Your task to perform on an android device: Open Amazon Image 0: 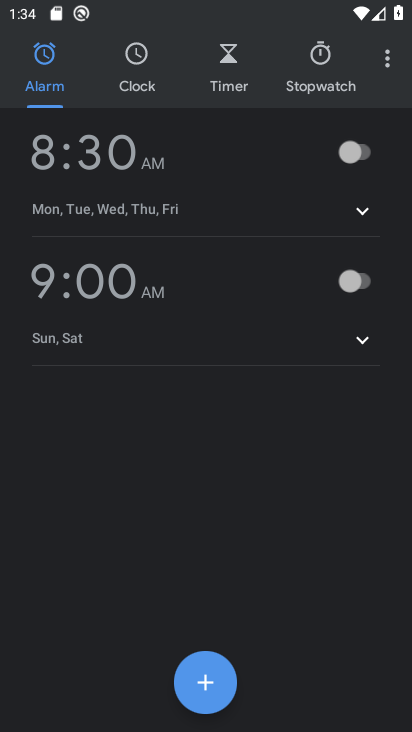
Step 0: press home button
Your task to perform on an android device: Open Amazon Image 1: 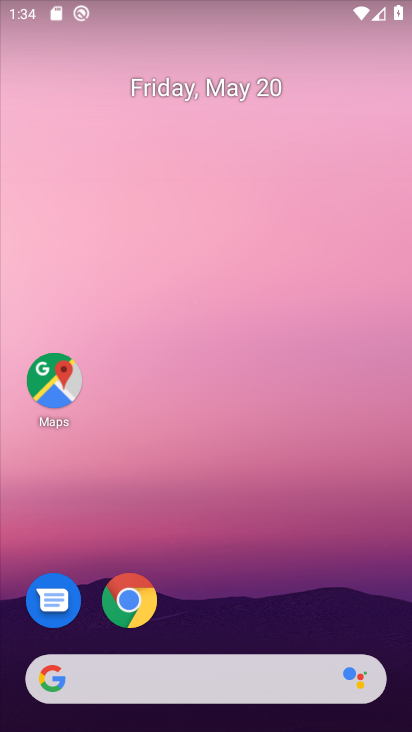
Step 1: click (138, 604)
Your task to perform on an android device: Open Amazon Image 2: 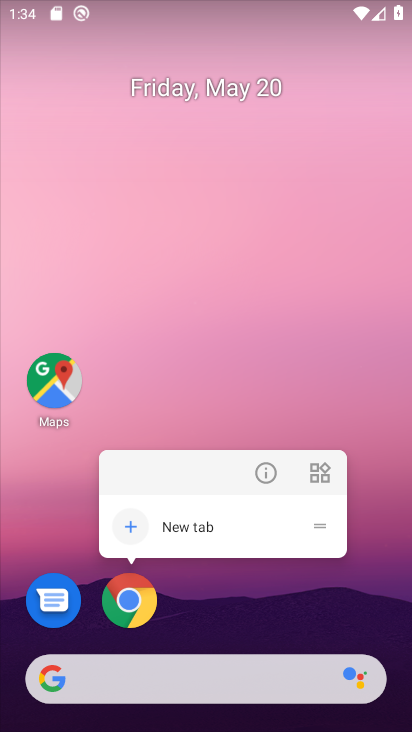
Step 2: click (139, 608)
Your task to perform on an android device: Open Amazon Image 3: 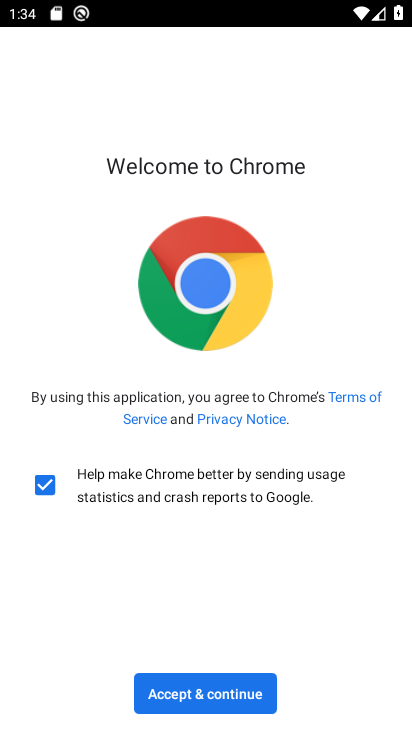
Step 3: click (196, 699)
Your task to perform on an android device: Open Amazon Image 4: 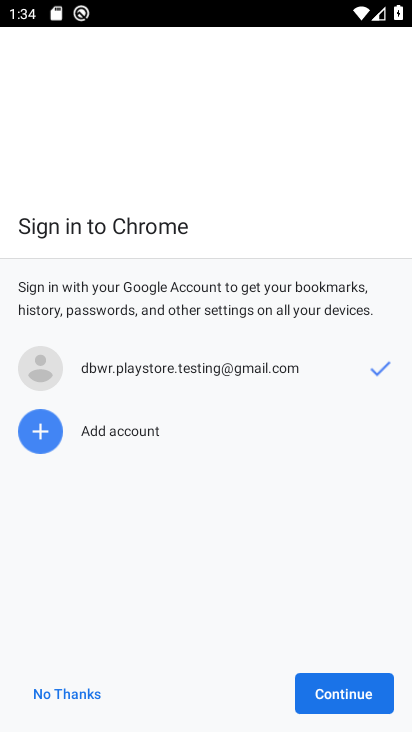
Step 4: click (334, 697)
Your task to perform on an android device: Open Amazon Image 5: 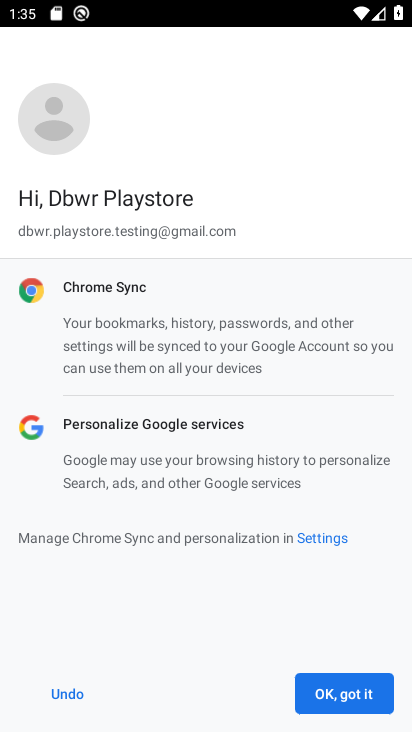
Step 5: click (334, 699)
Your task to perform on an android device: Open Amazon Image 6: 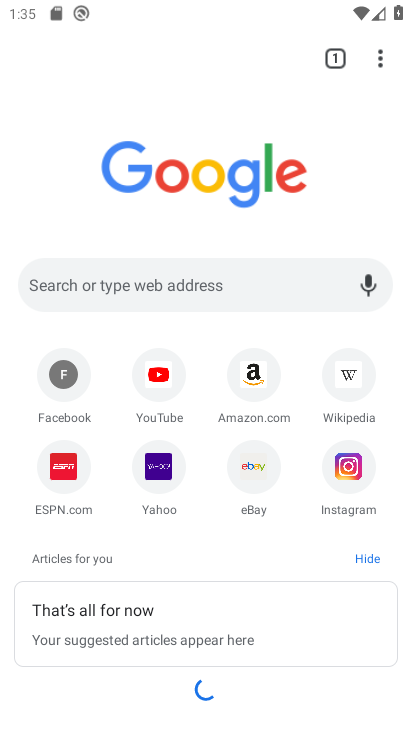
Step 6: click (261, 399)
Your task to perform on an android device: Open Amazon Image 7: 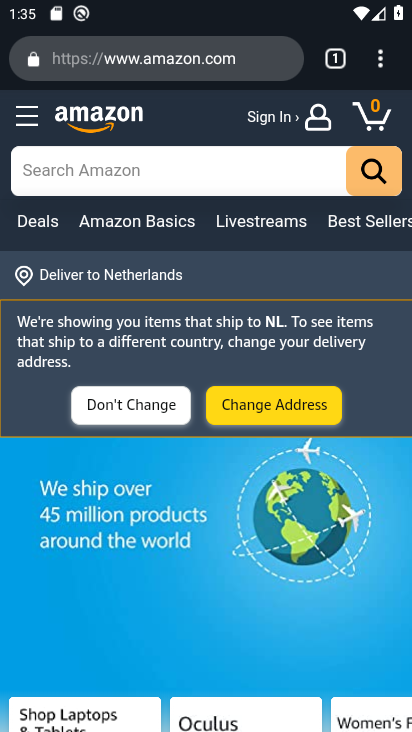
Step 7: task complete